Your task to perform on an android device: Open calendar and show me the second week of next month Image 0: 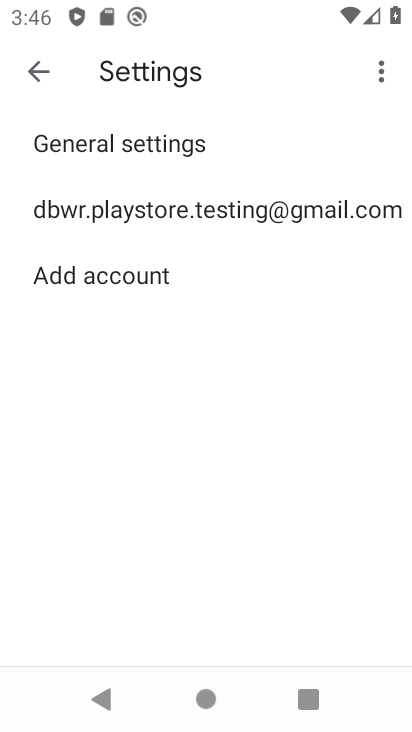
Step 0: press home button
Your task to perform on an android device: Open calendar and show me the second week of next month Image 1: 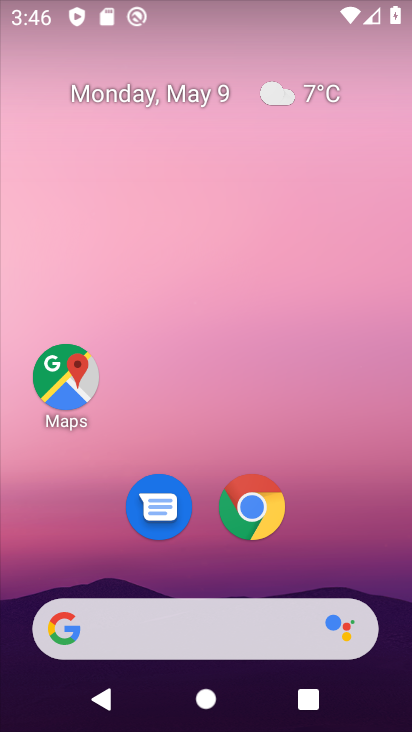
Step 1: drag from (239, 658) to (218, 174)
Your task to perform on an android device: Open calendar and show me the second week of next month Image 2: 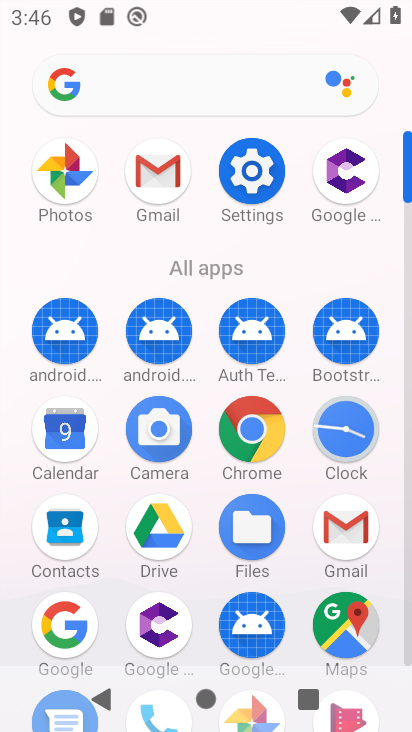
Step 2: click (75, 438)
Your task to perform on an android device: Open calendar and show me the second week of next month Image 3: 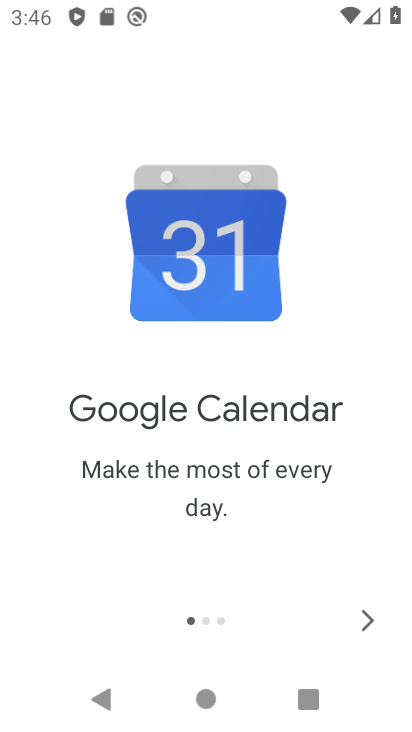
Step 3: click (358, 623)
Your task to perform on an android device: Open calendar and show me the second week of next month Image 4: 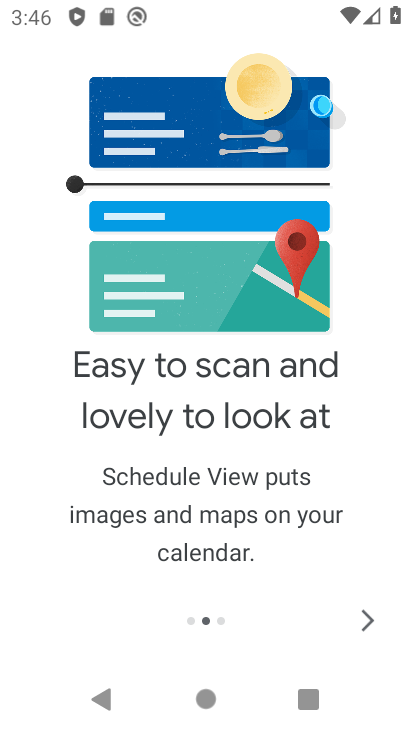
Step 4: click (360, 623)
Your task to perform on an android device: Open calendar and show me the second week of next month Image 5: 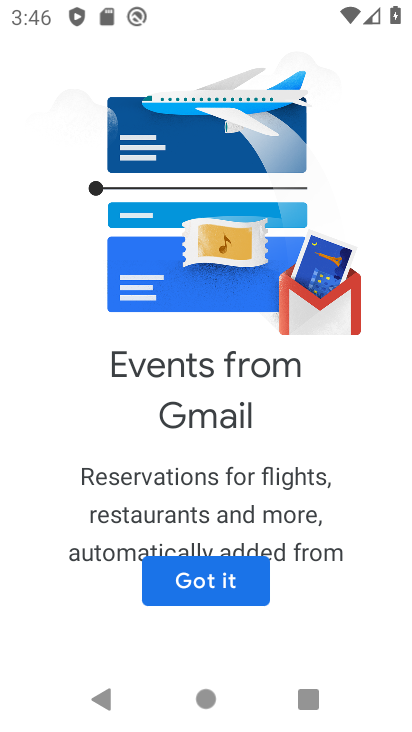
Step 5: click (360, 623)
Your task to perform on an android device: Open calendar and show me the second week of next month Image 6: 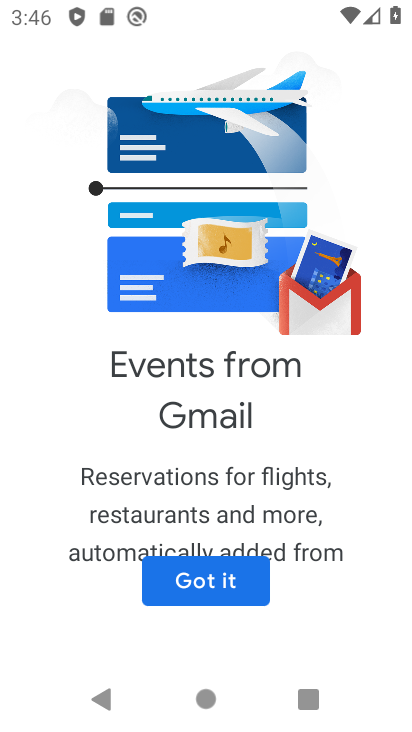
Step 6: click (224, 575)
Your task to perform on an android device: Open calendar and show me the second week of next month Image 7: 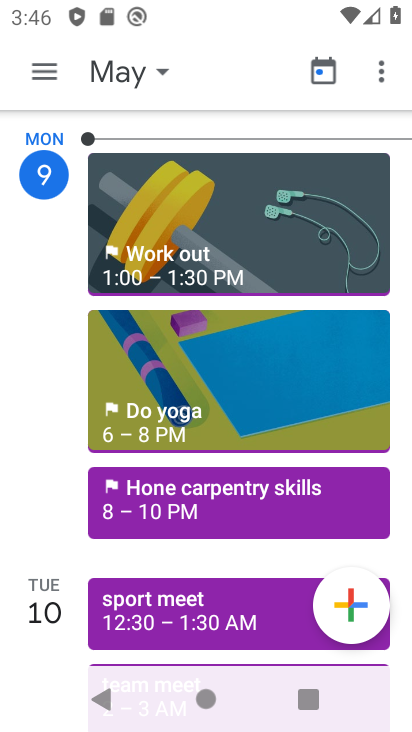
Step 7: click (59, 83)
Your task to perform on an android device: Open calendar and show me the second week of next month Image 8: 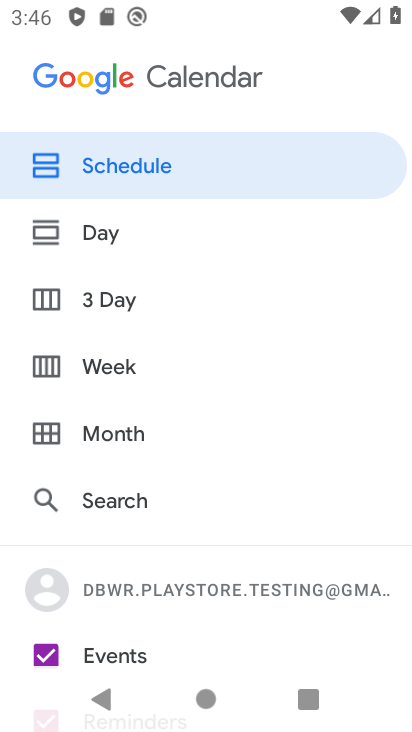
Step 8: click (143, 450)
Your task to perform on an android device: Open calendar and show me the second week of next month Image 9: 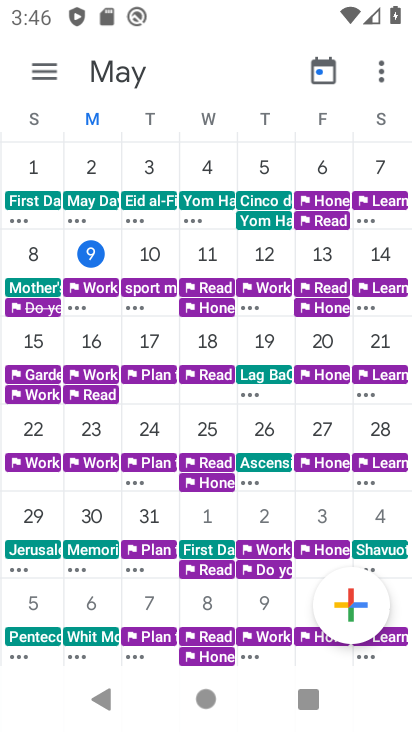
Step 9: drag from (322, 460) to (10, 472)
Your task to perform on an android device: Open calendar and show me the second week of next month Image 10: 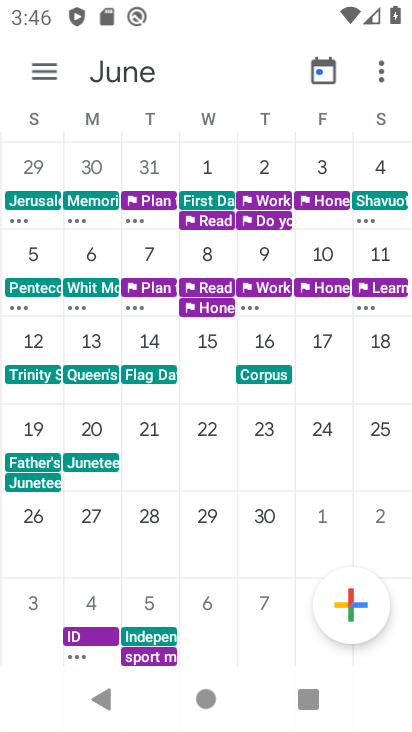
Step 10: click (81, 281)
Your task to perform on an android device: Open calendar and show me the second week of next month Image 11: 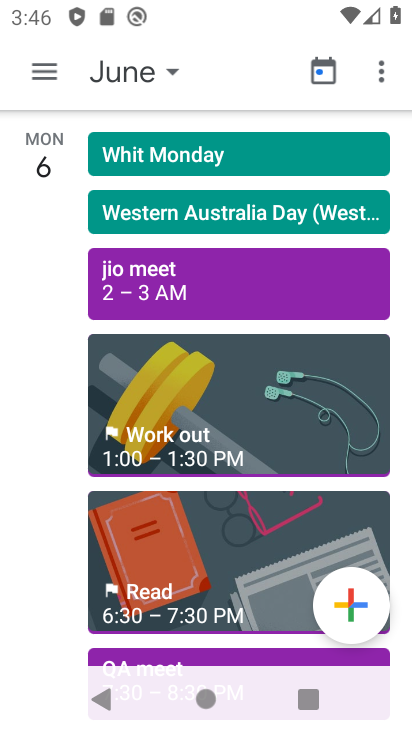
Step 11: task complete